Your task to perform on an android device: turn notification dots off Image 0: 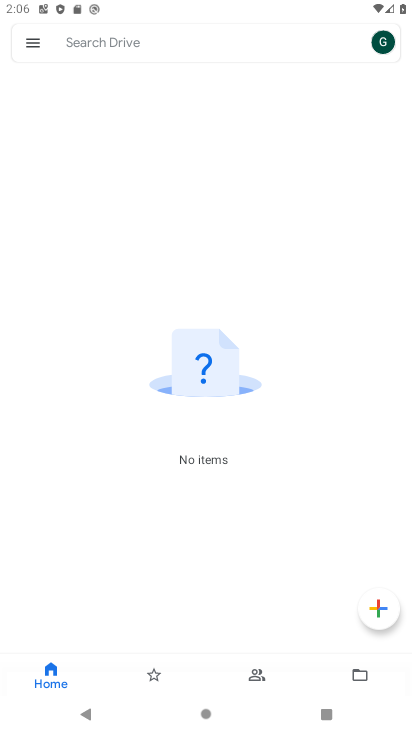
Step 0: press home button
Your task to perform on an android device: turn notification dots off Image 1: 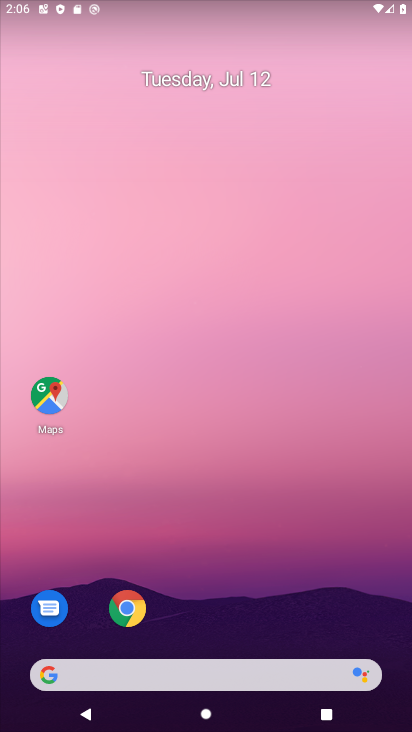
Step 1: drag from (244, 605) to (253, 148)
Your task to perform on an android device: turn notification dots off Image 2: 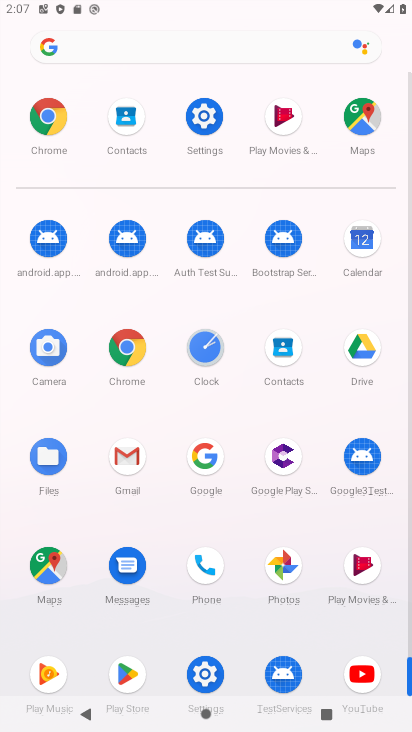
Step 2: click (204, 114)
Your task to perform on an android device: turn notification dots off Image 3: 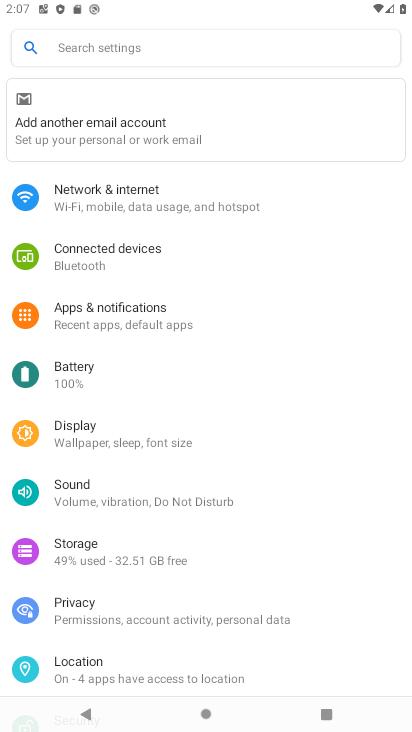
Step 3: click (100, 313)
Your task to perform on an android device: turn notification dots off Image 4: 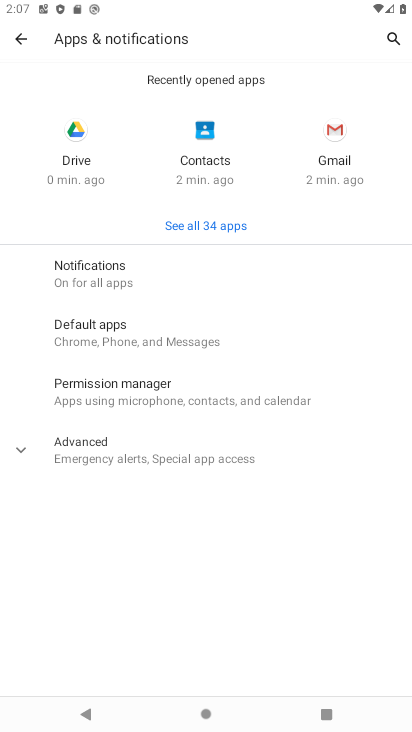
Step 4: click (95, 276)
Your task to perform on an android device: turn notification dots off Image 5: 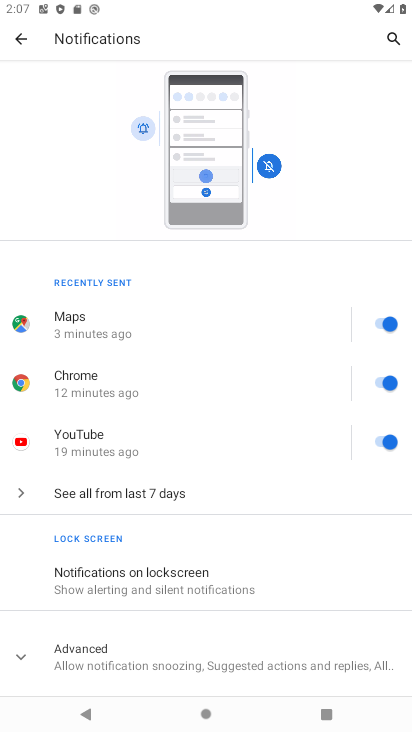
Step 5: drag from (232, 609) to (257, 207)
Your task to perform on an android device: turn notification dots off Image 6: 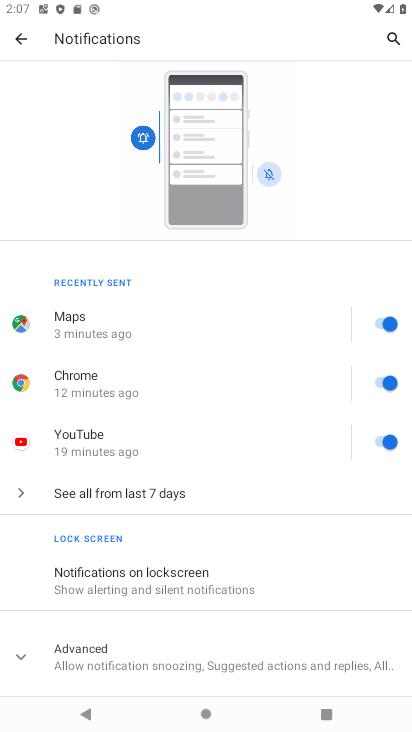
Step 6: click (117, 652)
Your task to perform on an android device: turn notification dots off Image 7: 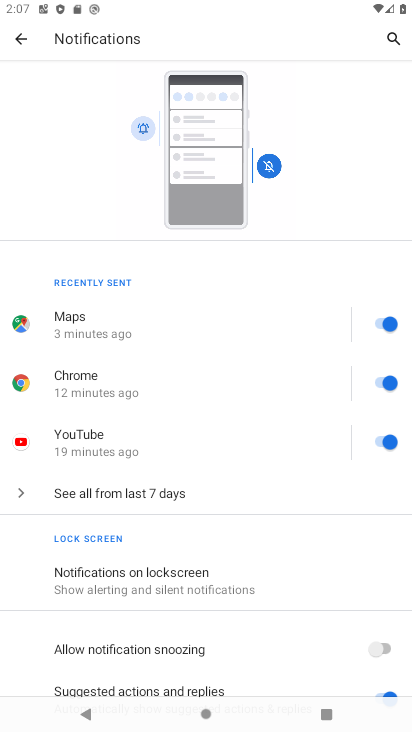
Step 7: task complete